Your task to perform on an android device: check android version Image 0: 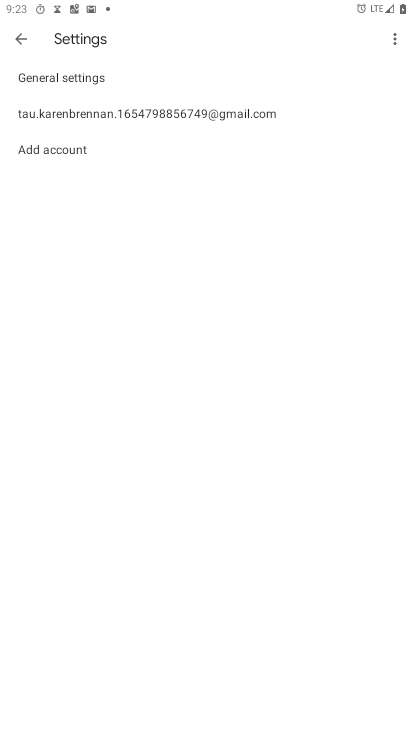
Step 0: press home button
Your task to perform on an android device: check android version Image 1: 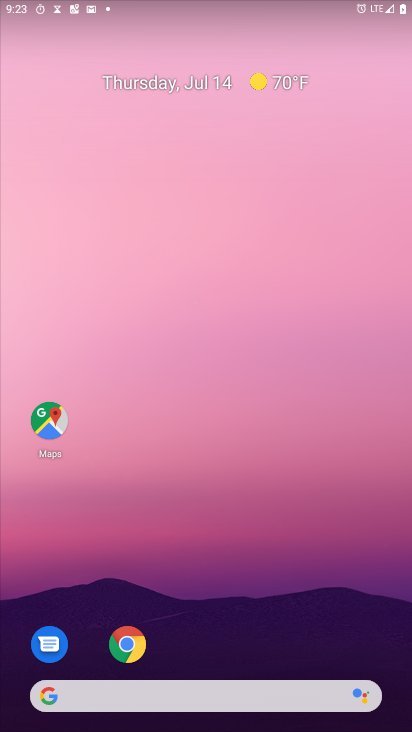
Step 1: drag from (188, 698) to (362, 21)
Your task to perform on an android device: check android version Image 2: 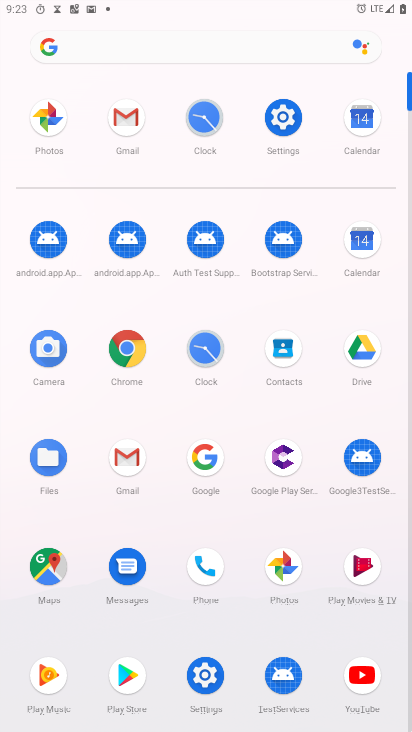
Step 2: click (283, 122)
Your task to perform on an android device: check android version Image 3: 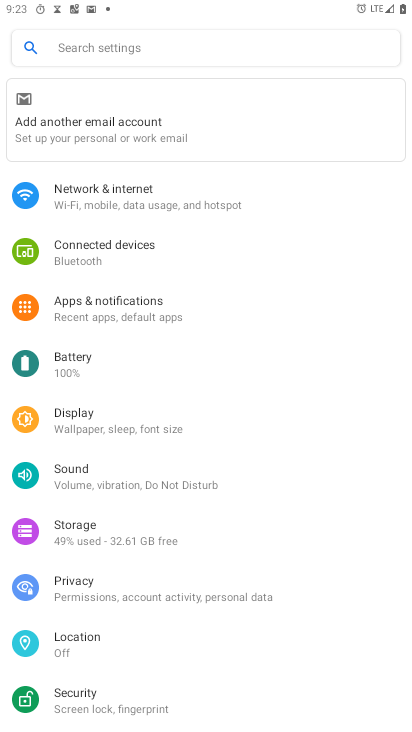
Step 3: drag from (334, 363) to (362, 82)
Your task to perform on an android device: check android version Image 4: 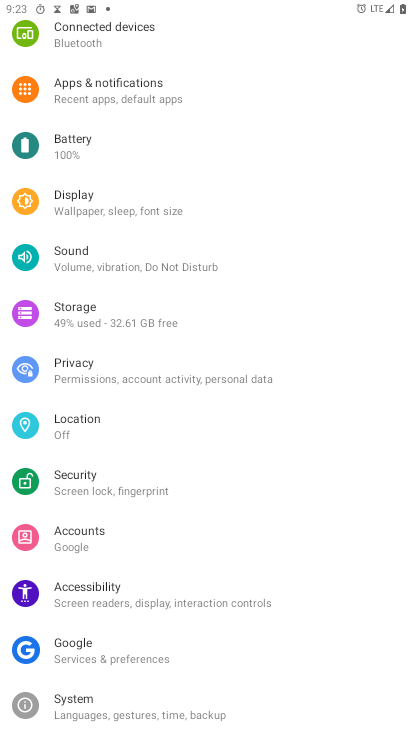
Step 4: drag from (263, 660) to (374, 67)
Your task to perform on an android device: check android version Image 5: 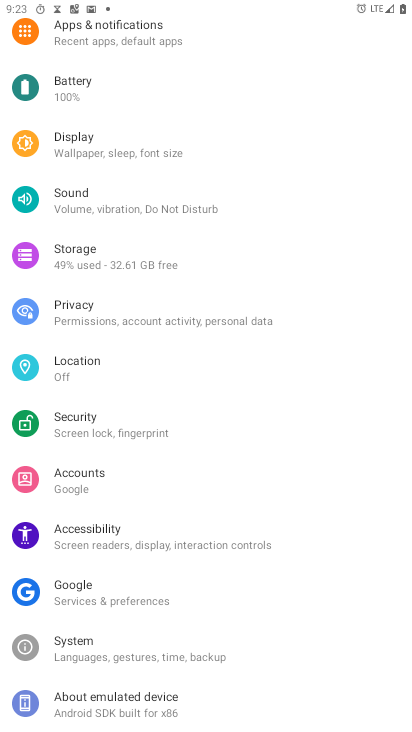
Step 5: click (143, 705)
Your task to perform on an android device: check android version Image 6: 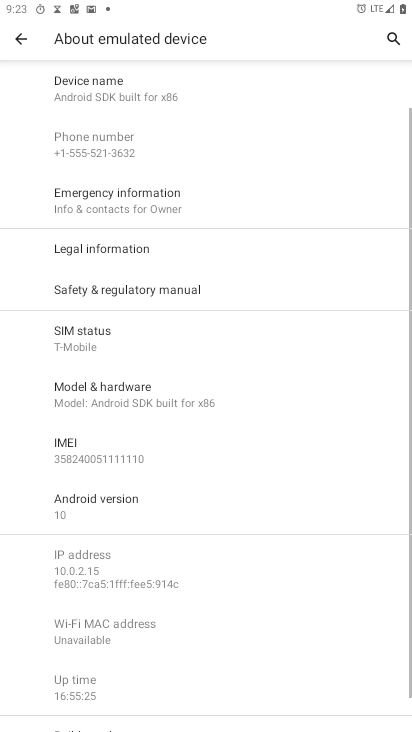
Step 6: drag from (189, 585) to (256, 82)
Your task to perform on an android device: check android version Image 7: 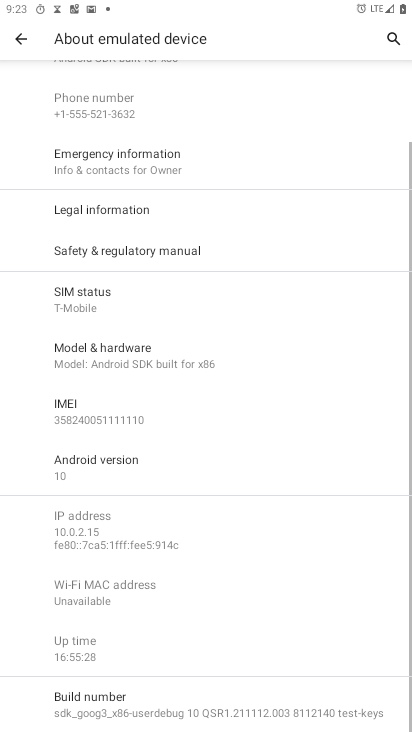
Step 7: click (105, 460)
Your task to perform on an android device: check android version Image 8: 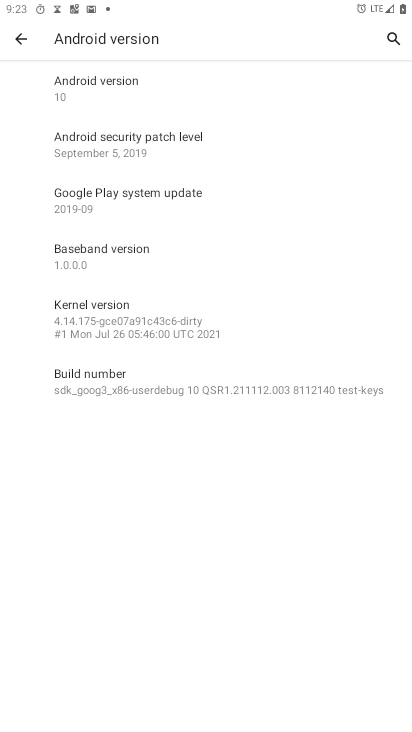
Step 8: task complete